Your task to perform on an android device: Go to notification settings Image 0: 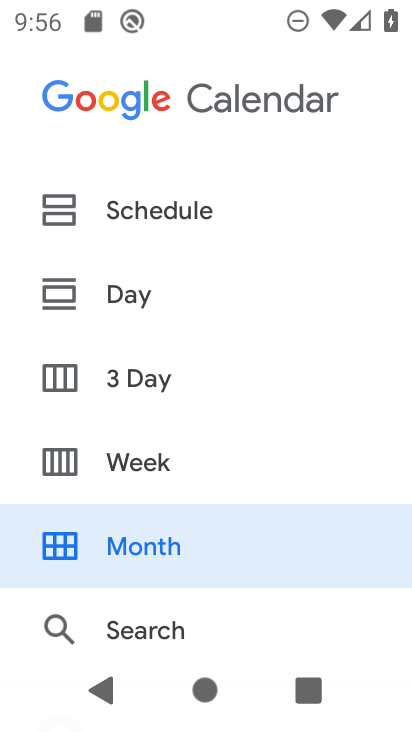
Step 0: press home button
Your task to perform on an android device: Go to notification settings Image 1: 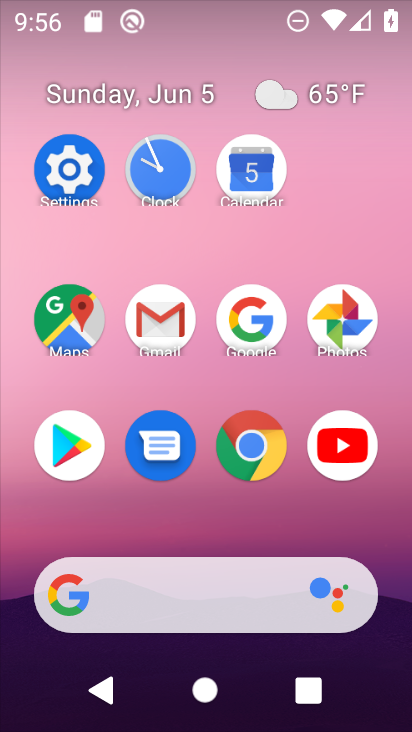
Step 1: click (85, 159)
Your task to perform on an android device: Go to notification settings Image 2: 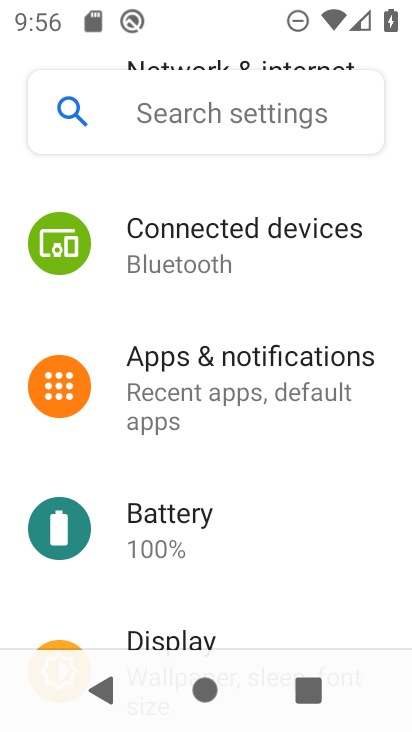
Step 2: click (255, 388)
Your task to perform on an android device: Go to notification settings Image 3: 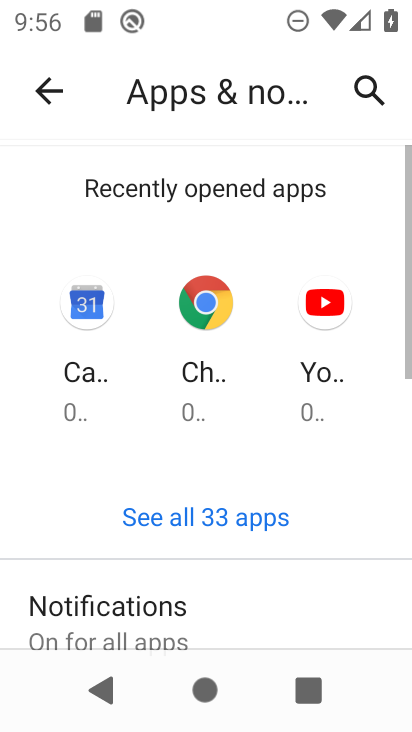
Step 3: task complete